Your task to perform on an android device: Open Reddit.com Image 0: 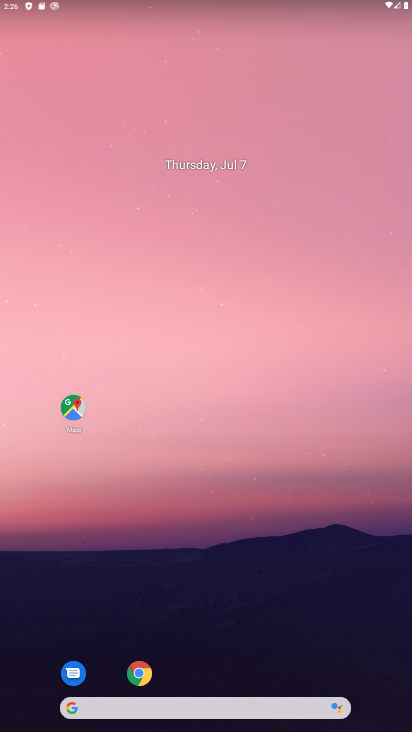
Step 0: drag from (299, 528) to (296, 37)
Your task to perform on an android device: Open Reddit.com Image 1: 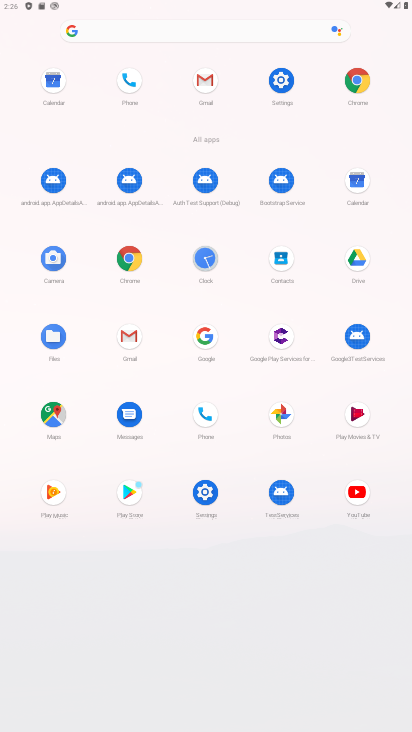
Step 1: click (132, 258)
Your task to perform on an android device: Open Reddit.com Image 2: 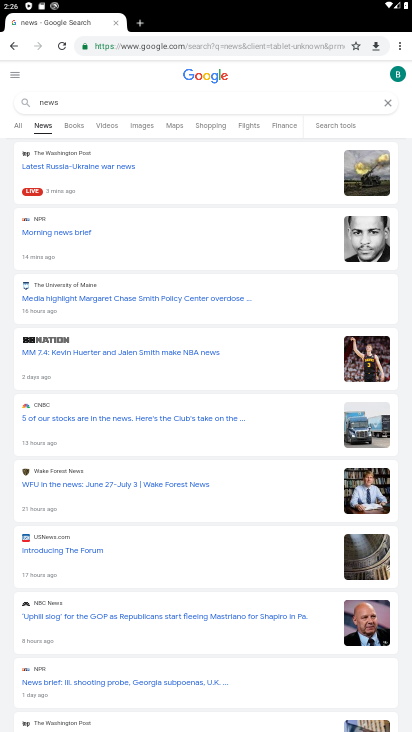
Step 2: task complete